Your task to perform on an android device: turn on translation in the chrome app Image 0: 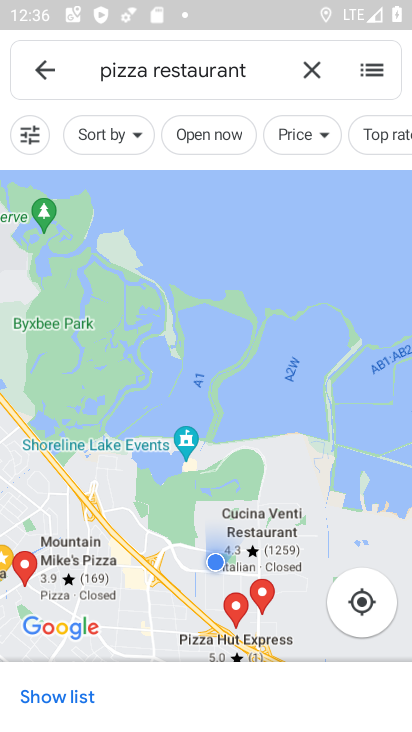
Step 0: press home button
Your task to perform on an android device: turn on translation in the chrome app Image 1: 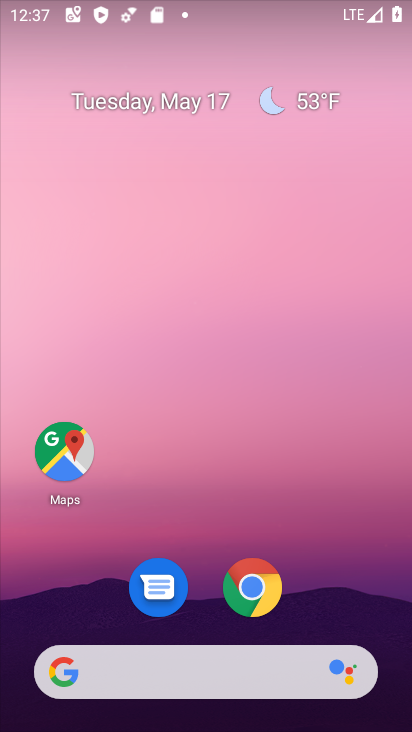
Step 1: click (268, 591)
Your task to perform on an android device: turn on translation in the chrome app Image 2: 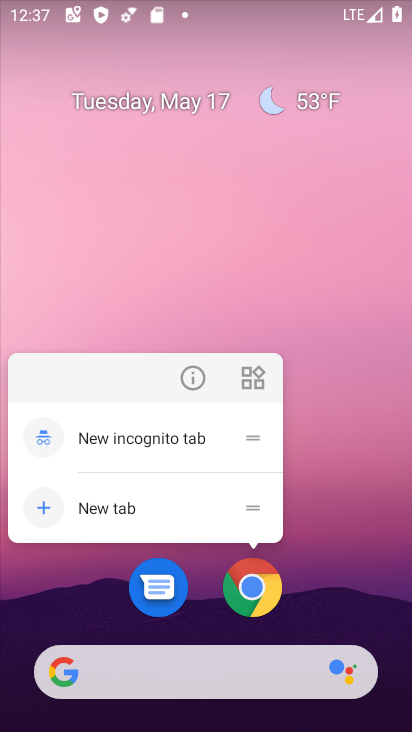
Step 2: click (261, 578)
Your task to perform on an android device: turn on translation in the chrome app Image 3: 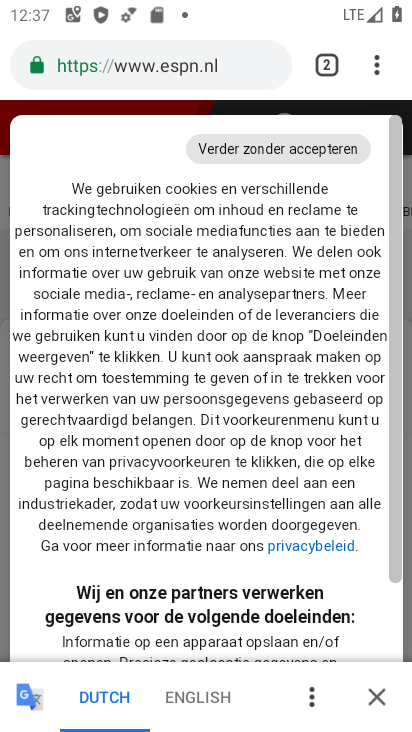
Step 3: click (364, 68)
Your task to perform on an android device: turn on translation in the chrome app Image 4: 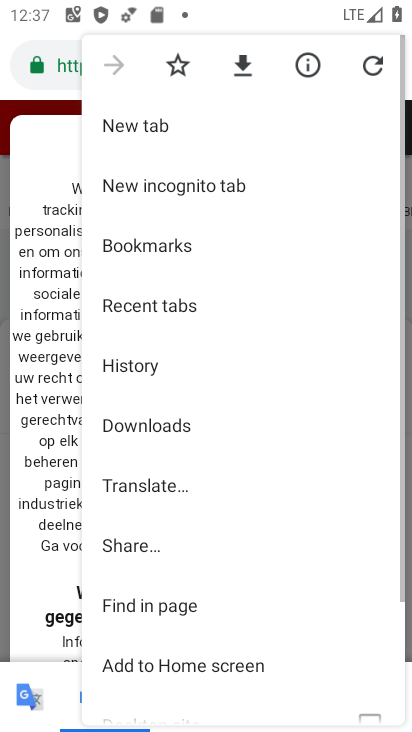
Step 4: drag from (196, 587) to (160, 44)
Your task to perform on an android device: turn on translation in the chrome app Image 5: 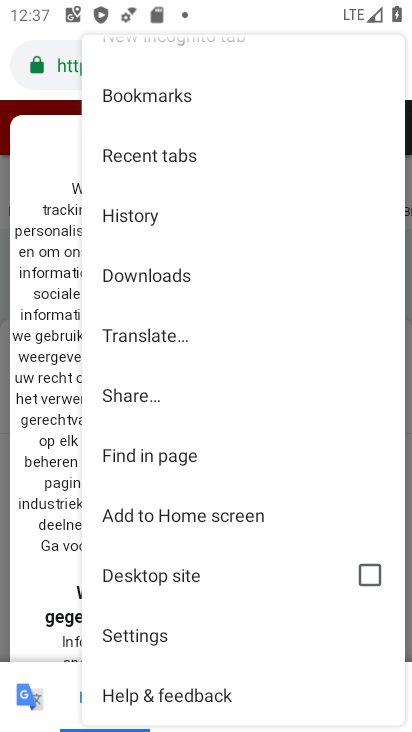
Step 5: click (159, 630)
Your task to perform on an android device: turn on translation in the chrome app Image 6: 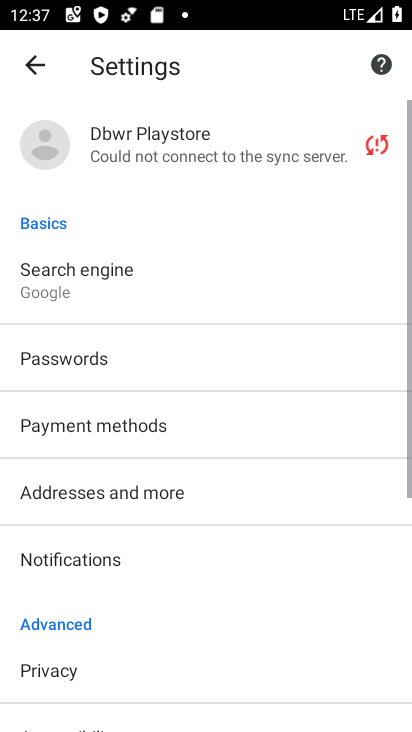
Step 6: drag from (158, 632) to (123, 35)
Your task to perform on an android device: turn on translation in the chrome app Image 7: 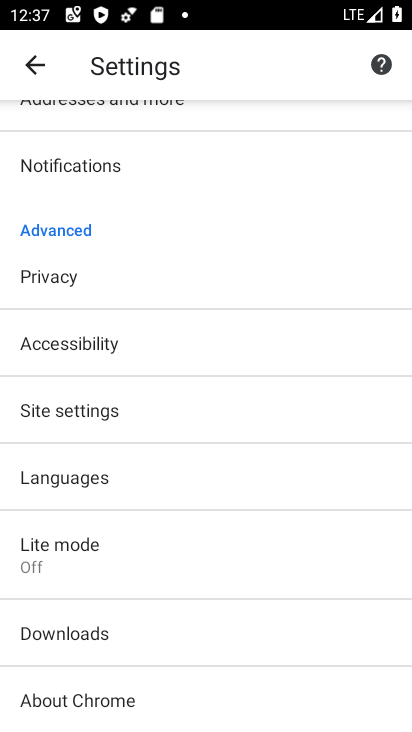
Step 7: click (76, 479)
Your task to perform on an android device: turn on translation in the chrome app Image 8: 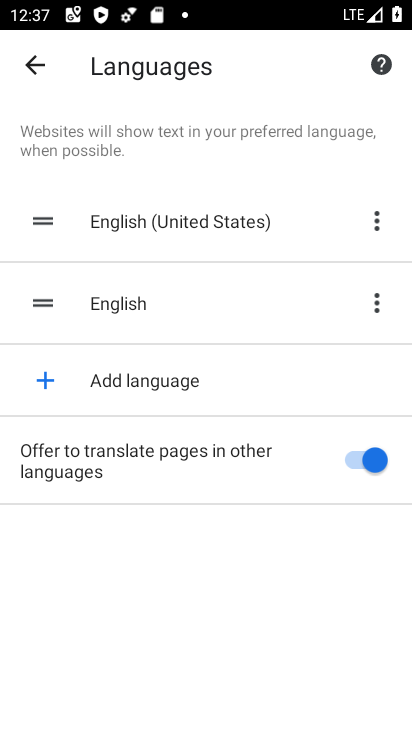
Step 8: task complete